Your task to perform on an android device: open app "Microsoft Authenticator" (install if not already installed) Image 0: 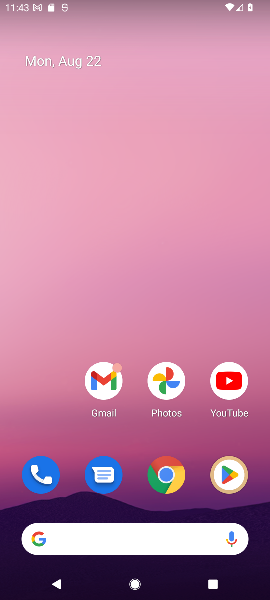
Step 0: click (225, 476)
Your task to perform on an android device: open app "Microsoft Authenticator" (install if not already installed) Image 1: 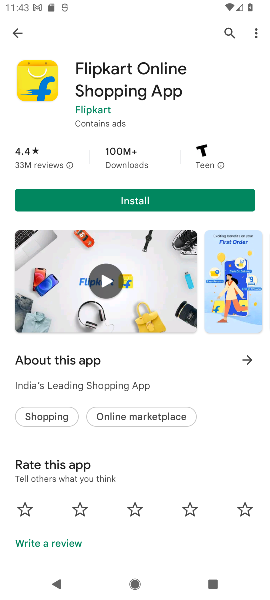
Step 1: click (17, 33)
Your task to perform on an android device: open app "Microsoft Authenticator" (install if not already installed) Image 2: 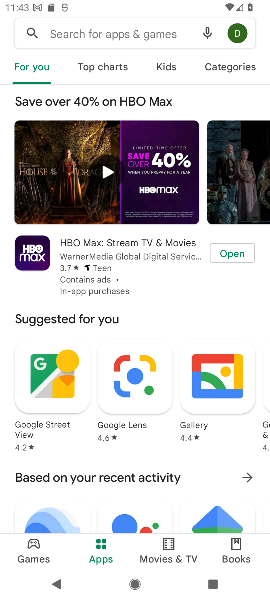
Step 2: click (77, 33)
Your task to perform on an android device: open app "Microsoft Authenticator" (install if not already installed) Image 3: 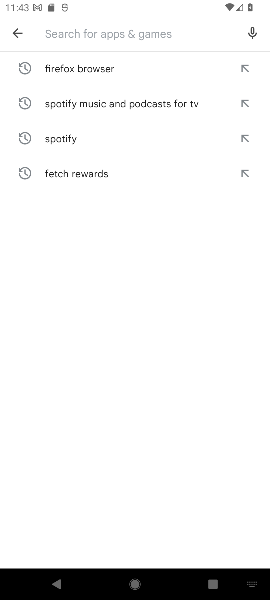
Step 3: type "Microsoft Authenticator"
Your task to perform on an android device: open app "Microsoft Authenticator" (install if not already installed) Image 4: 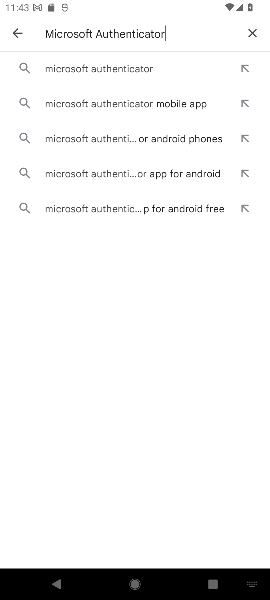
Step 4: click (143, 69)
Your task to perform on an android device: open app "Microsoft Authenticator" (install if not already installed) Image 5: 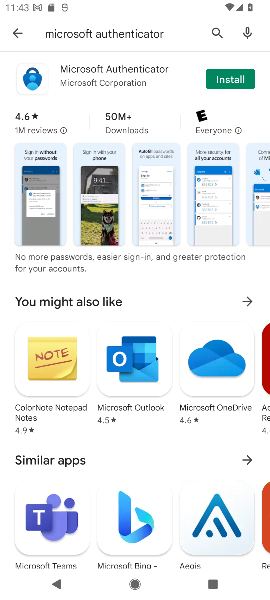
Step 5: click (237, 76)
Your task to perform on an android device: open app "Microsoft Authenticator" (install if not already installed) Image 6: 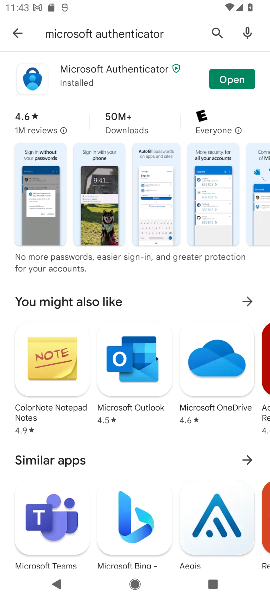
Step 6: click (233, 81)
Your task to perform on an android device: open app "Microsoft Authenticator" (install if not already installed) Image 7: 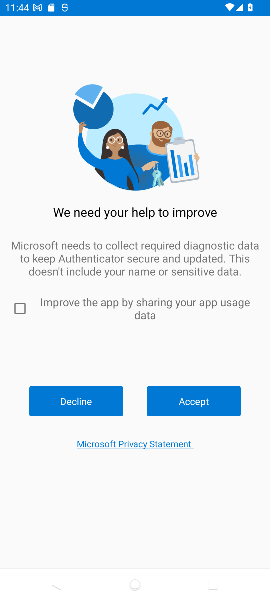
Step 7: task complete